Your task to perform on an android device: turn notification dots off Image 0: 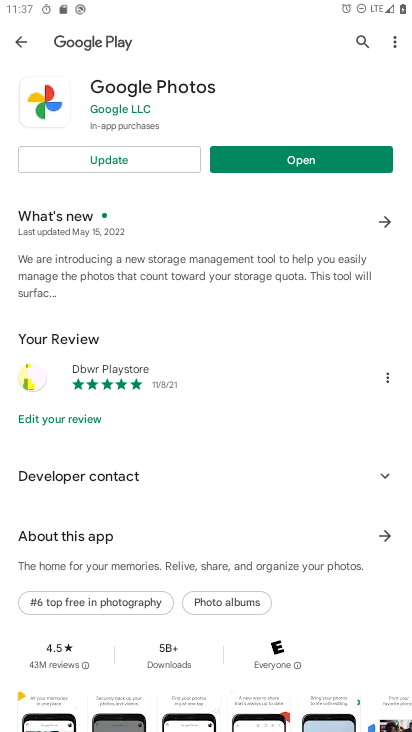
Step 0: press home button
Your task to perform on an android device: turn notification dots off Image 1: 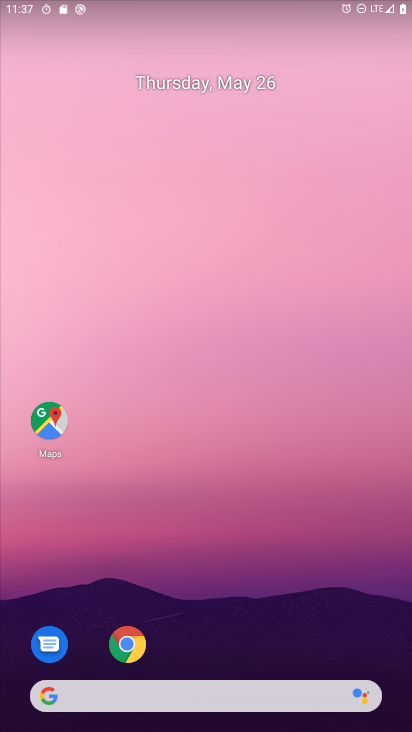
Step 1: drag from (354, 637) to (364, 244)
Your task to perform on an android device: turn notification dots off Image 2: 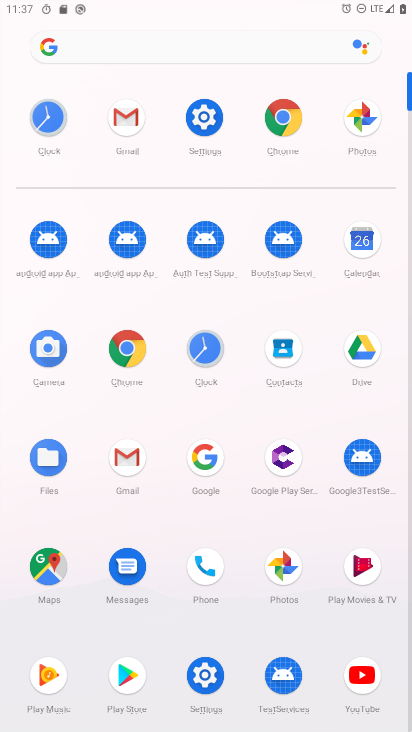
Step 2: click (206, 132)
Your task to perform on an android device: turn notification dots off Image 3: 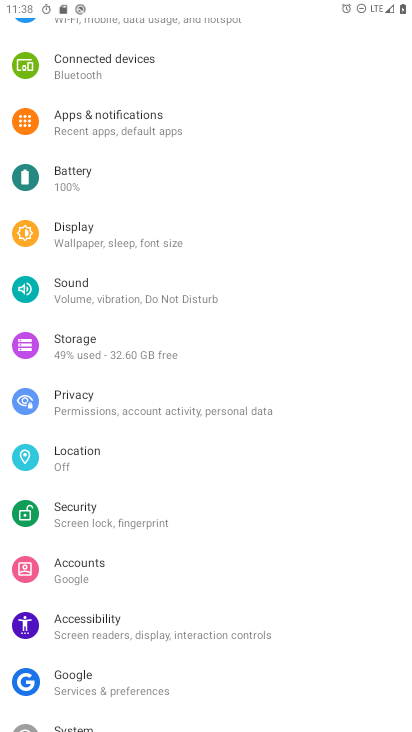
Step 3: click (163, 125)
Your task to perform on an android device: turn notification dots off Image 4: 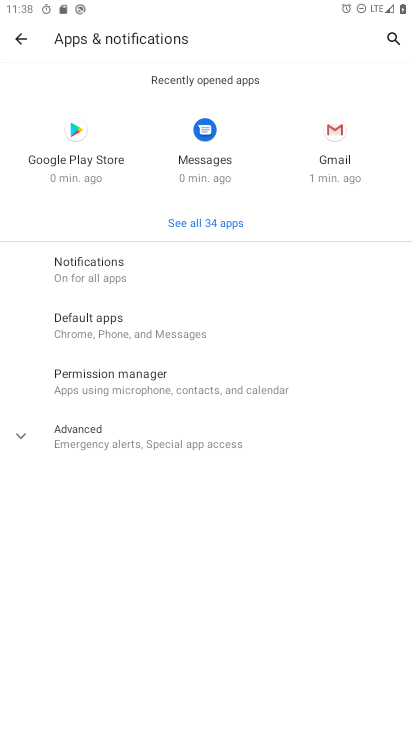
Step 4: click (97, 279)
Your task to perform on an android device: turn notification dots off Image 5: 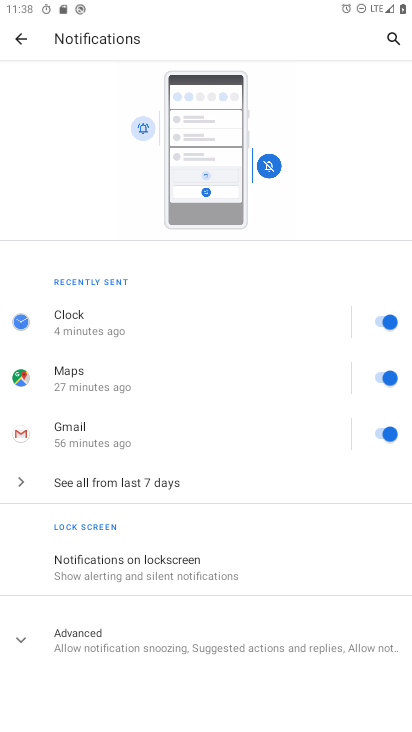
Step 5: drag from (257, 563) to (281, 426)
Your task to perform on an android device: turn notification dots off Image 6: 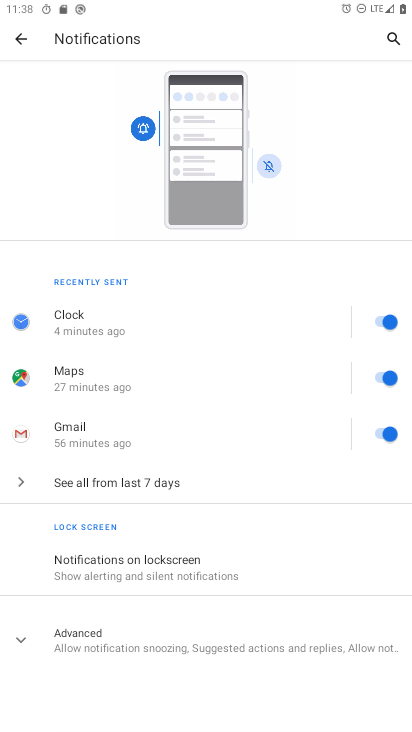
Step 6: click (240, 656)
Your task to perform on an android device: turn notification dots off Image 7: 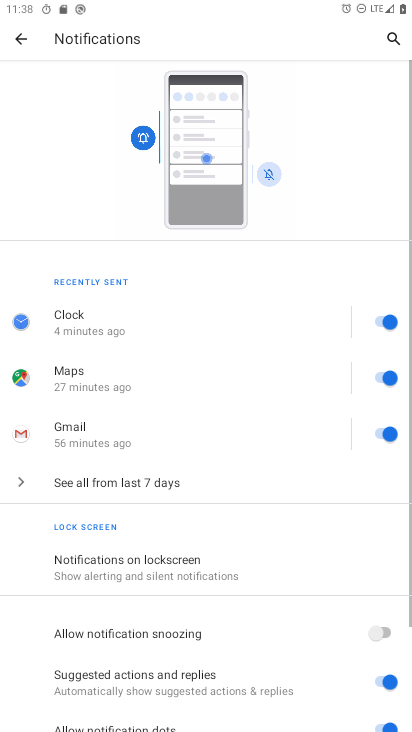
Step 7: drag from (287, 590) to (295, 485)
Your task to perform on an android device: turn notification dots off Image 8: 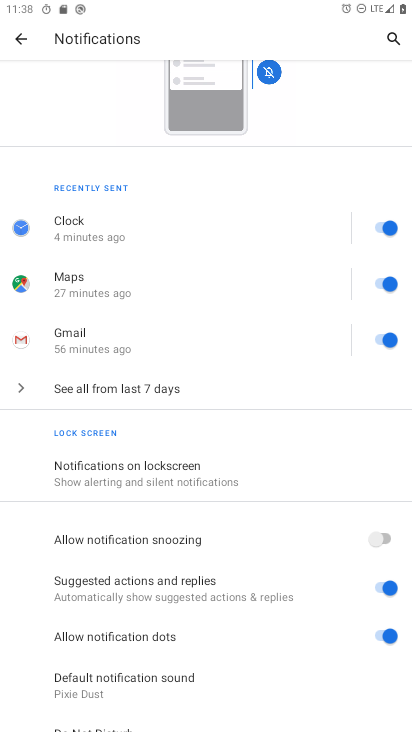
Step 8: click (389, 638)
Your task to perform on an android device: turn notification dots off Image 9: 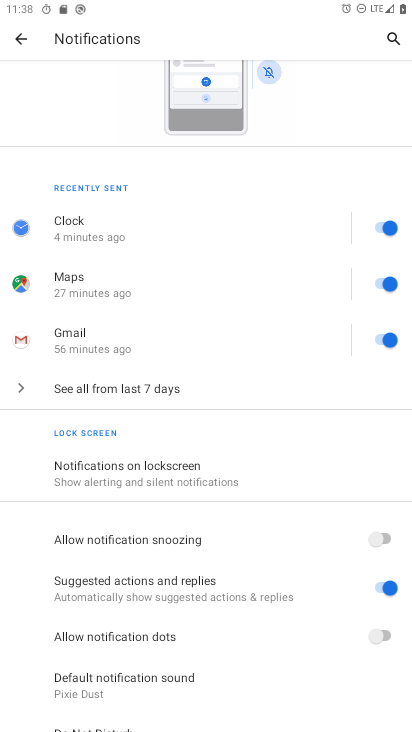
Step 9: task complete